Your task to perform on an android device: turn on data saver in the chrome app Image 0: 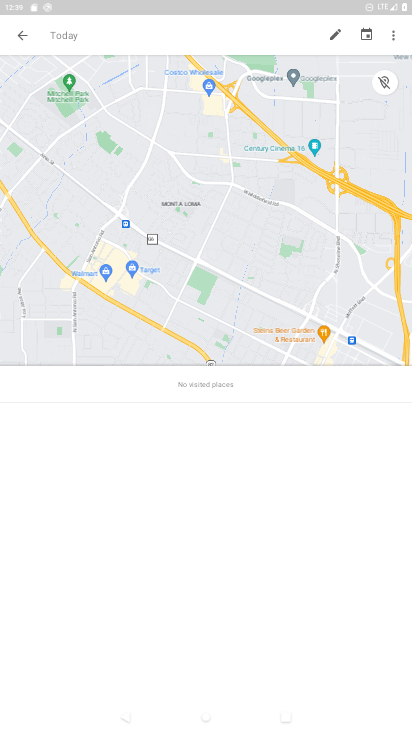
Step 0: press home button
Your task to perform on an android device: turn on data saver in the chrome app Image 1: 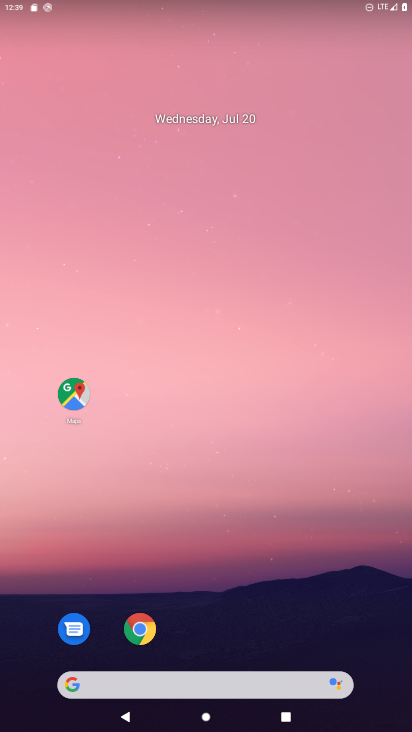
Step 1: click (139, 635)
Your task to perform on an android device: turn on data saver in the chrome app Image 2: 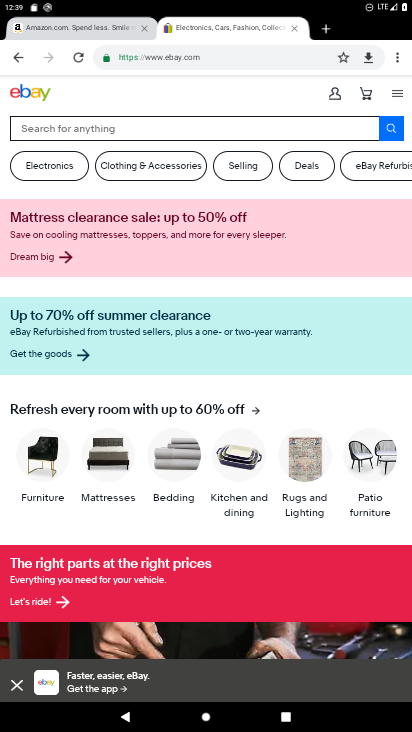
Step 2: click (400, 52)
Your task to perform on an android device: turn on data saver in the chrome app Image 3: 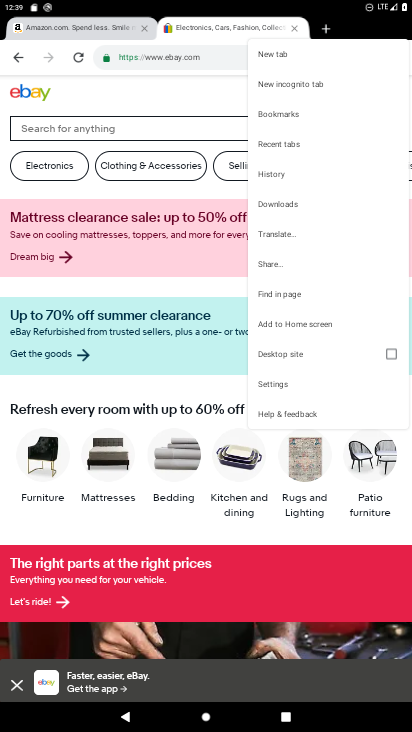
Step 3: click (268, 380)
Your task to perform on an android device: turn on data saver in the chrome app Image 4: 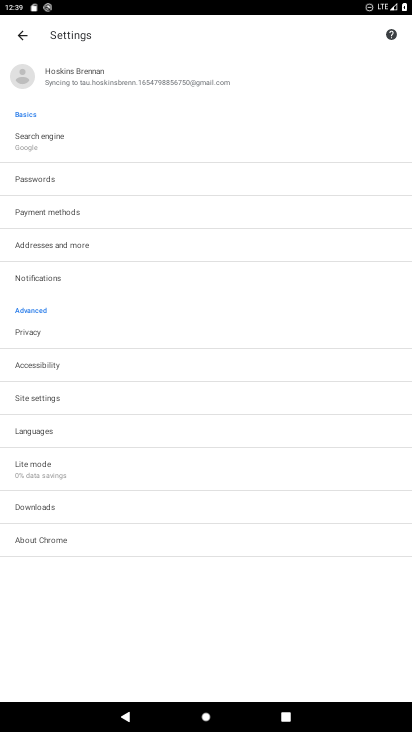
Step 4: click (58, 470)
Your task to perform on an android device: turn on data saver in the chrome app Image 5: 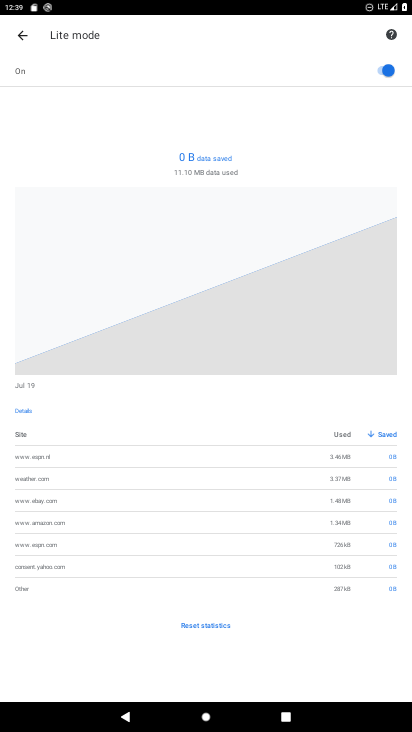
Step 5: task complete